Your task to perform on an android device: Turn on the flashlight Image 0: 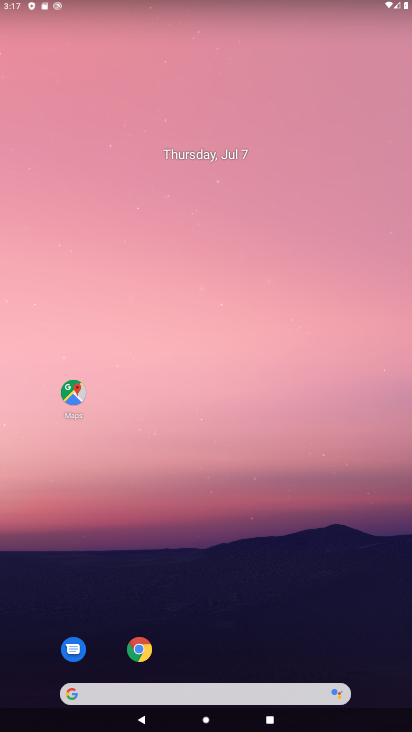
Step 0: drag from (217, 654) to (358, 144)
Your task to perform on an android device: Turn on the flashlight Image 1: 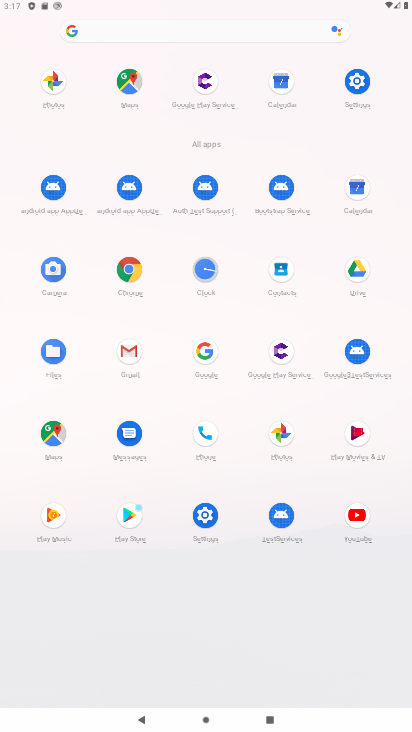
Step 1: click (203, 511)
Your task to perform on an android device: Turn on the flashlight Image 2: 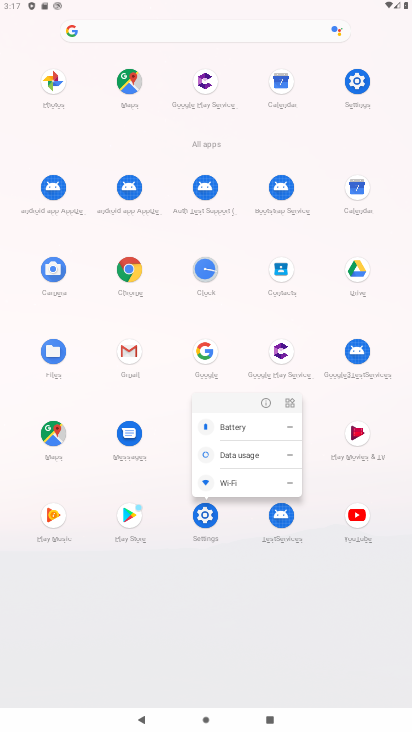
Step 2: click (264, 395)
Your task to perform on an android device: Turn on the flashlight Image 3: 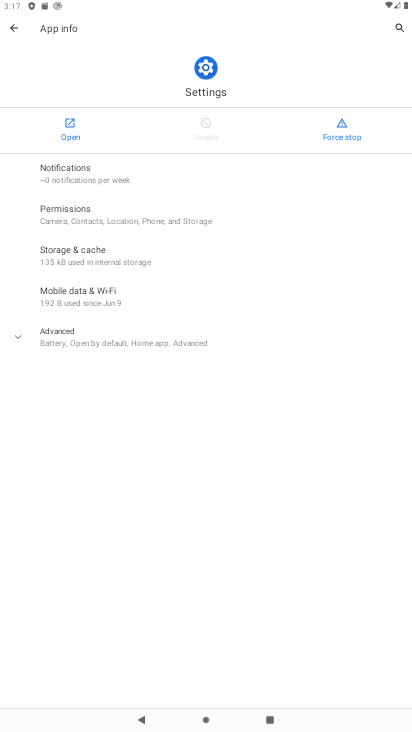
Step 3: click (74, 123)
Your task to perform on an android device: Turn on the flashlight Image 4: 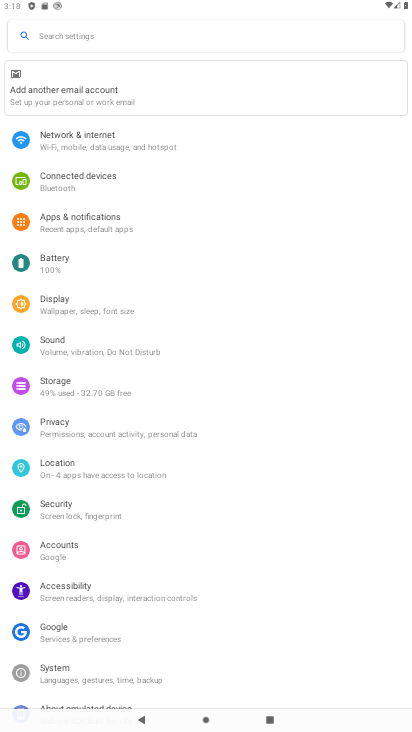
Step 4: click (125, 35)
Your task to perform on an android device: Turn on the flashlight Image 5: 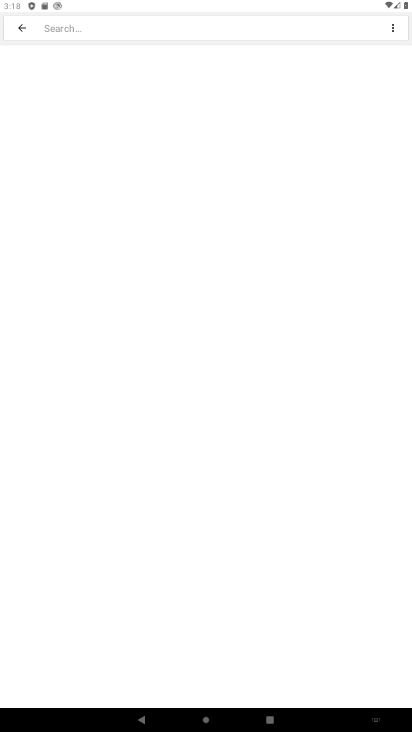
Step 5: click (245, 411)
Your task to perform on an android device: Turn on the flashlight Image 6: 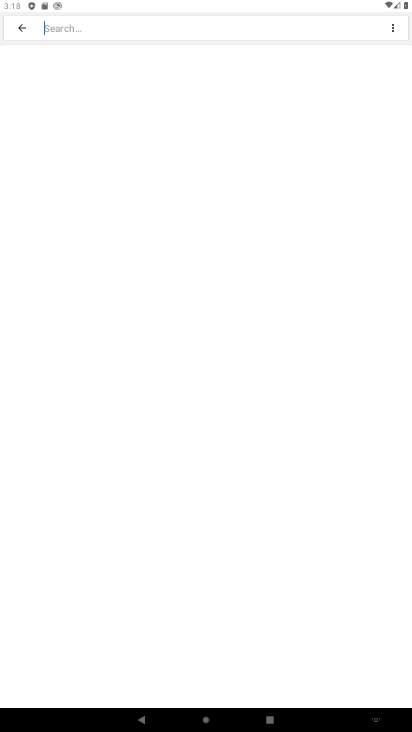
Step 6: type "flashlight"
Your task to perform on an android device: Turn on the flashlight Image 7: 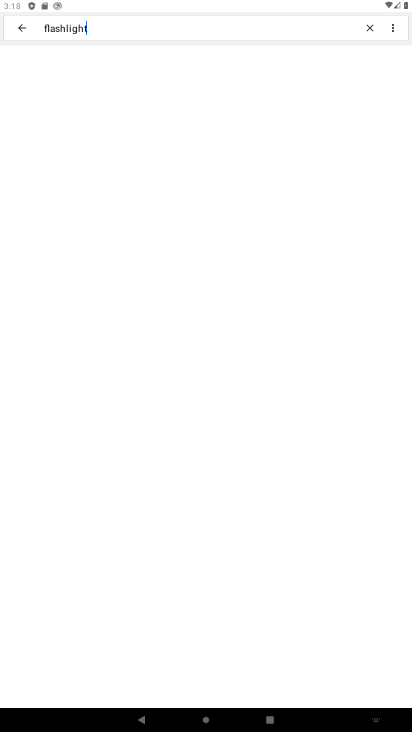
Step 7: type ""
Your task to perform on an android device: Turn on the flashlight Image 8: 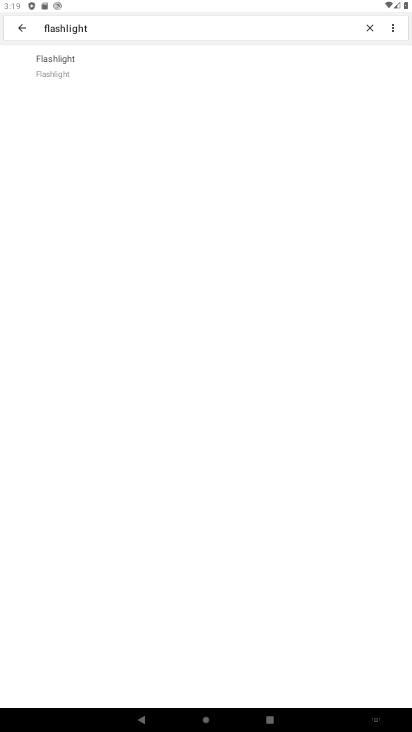
Step 8: click (72, 59)
Your task to perform on an android device: Turn on the flashlight Image 9: 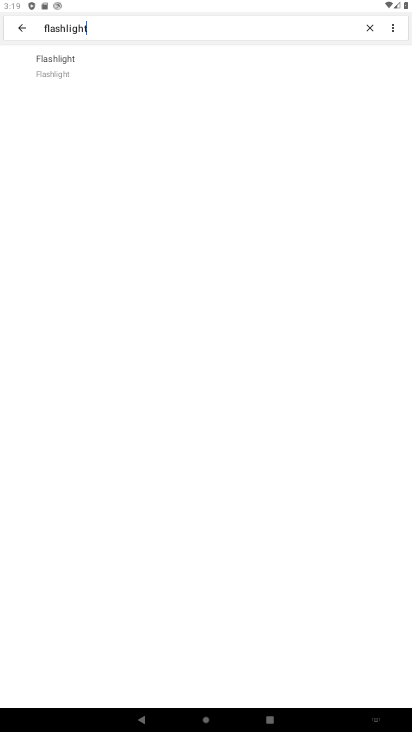
Step 9: click (92, 68)
Your task to perform on an android device: Turn on the flashlight Image 10: 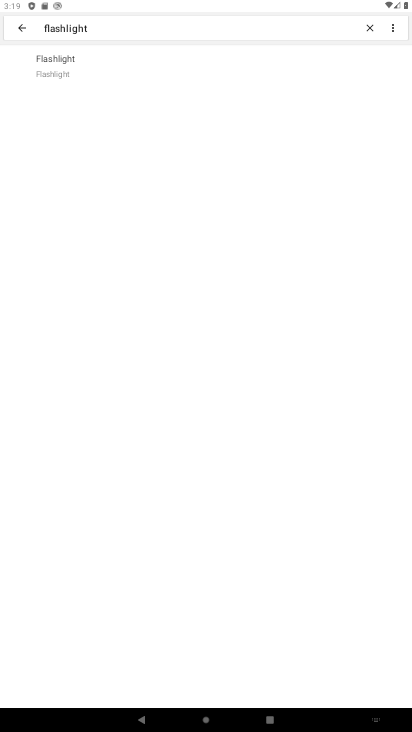
Step 10: task complete